Your task to perform on an android device: Open the phone app and click the voicemail tab. Image 0: 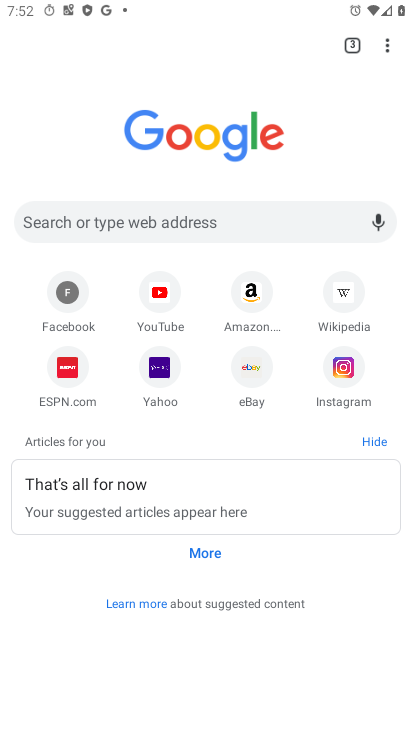
Step 0: press home button
Your task to perform on an android device: Open the phone app and click the voicemail tab. Image 1: 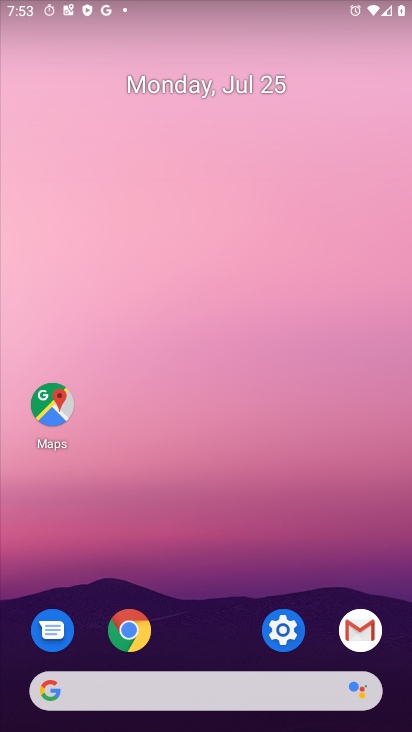
Step 1: drag from (266, 692) to (257, 168)
Your task to perform on an android device: Open the phone app and click the voicemail tab. Image 2: 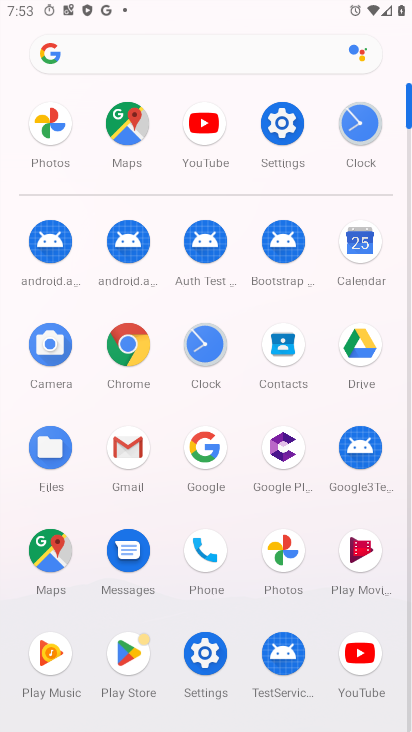
Step 2: click (210, 556)
Your task to perform on an android device: Open the phone app and click the voicemail tab. Image 3: 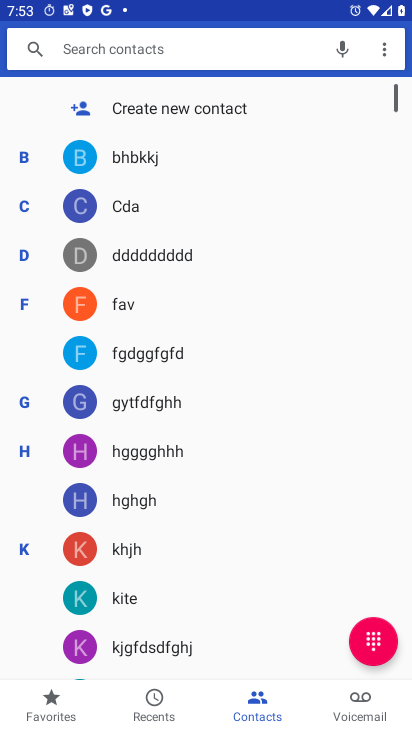
Step 3: click (351, 712)
Your task to perform on an android device: Open the phone app and click the voicemail tab. Image 4: 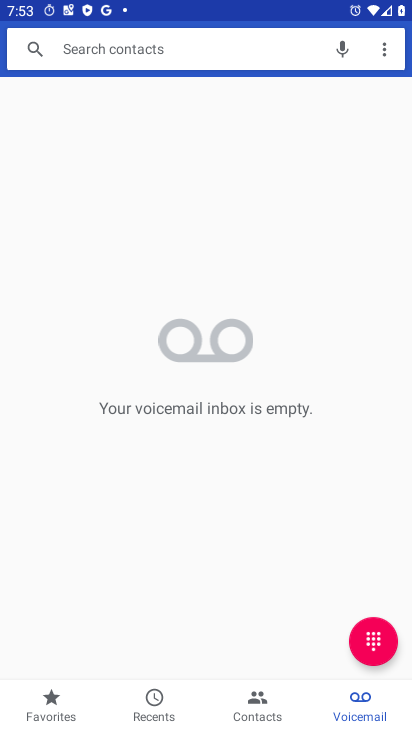
Step 4: task complete